Your task to perform on an android device: change the clock display to show seconds Image 0: 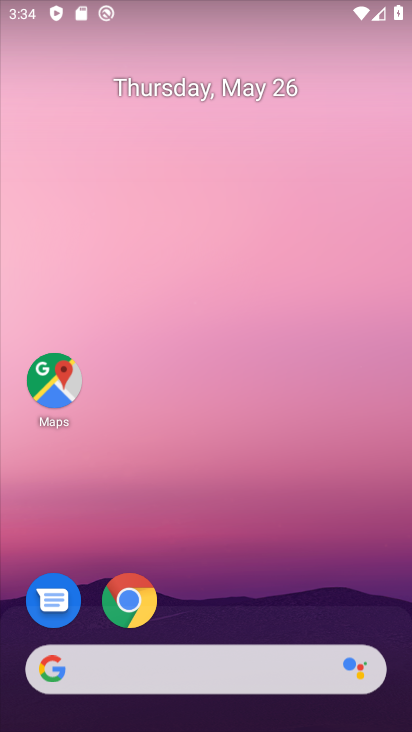
Step 0: drag from (236, 511) to (264, 175)
Your task to perform on an android device: change the clock display to show seconds Image 1: 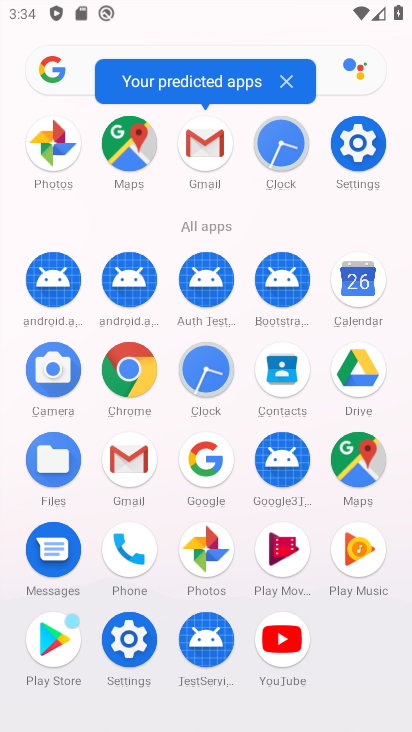
Step 1: click (201, 369)
Your task to perform on an android device: change the clock display to show seconds Image 2: 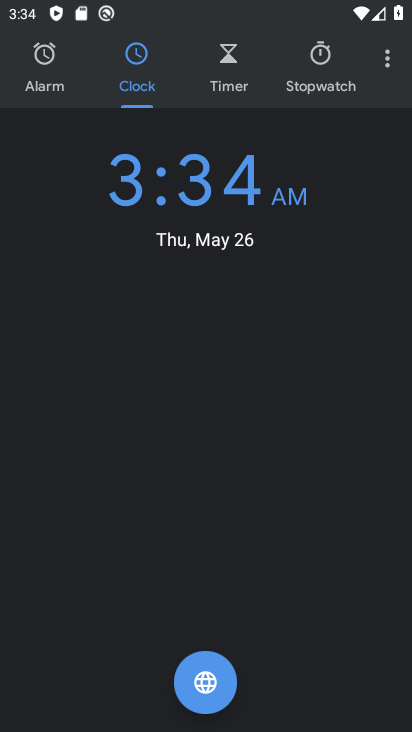
Step 2: click (384, 67)
Your task to perform on an android device: change the clock display to show seconds Image 3: 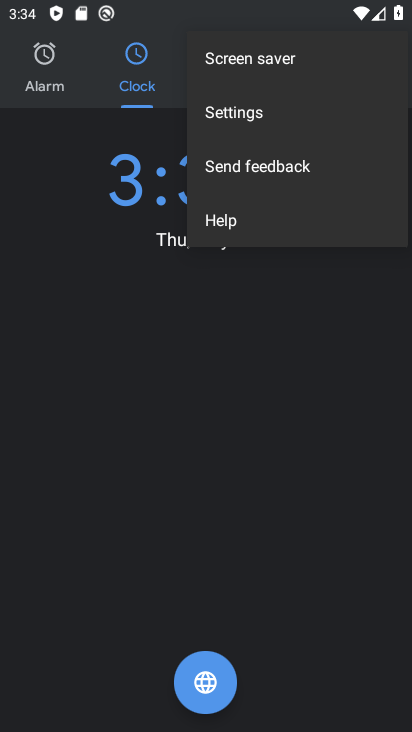
Step 3: click (214, 117)
Your task to perform on an android device: change the clock display to show seconds Image 4: 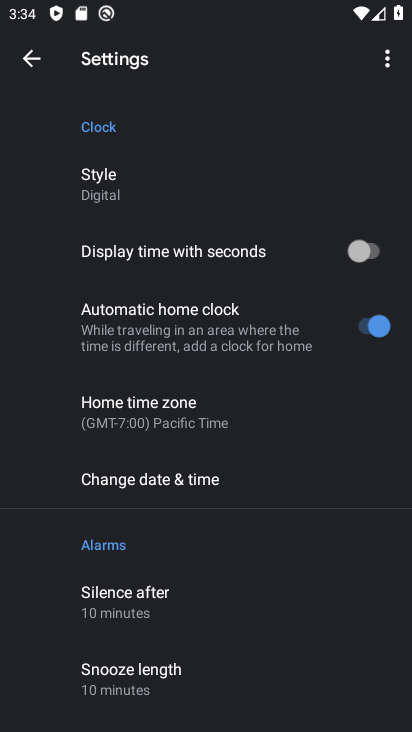
Step 4: click (133, 186)
Your task to perform on an android device: change the clock display to show seconds Image 5: 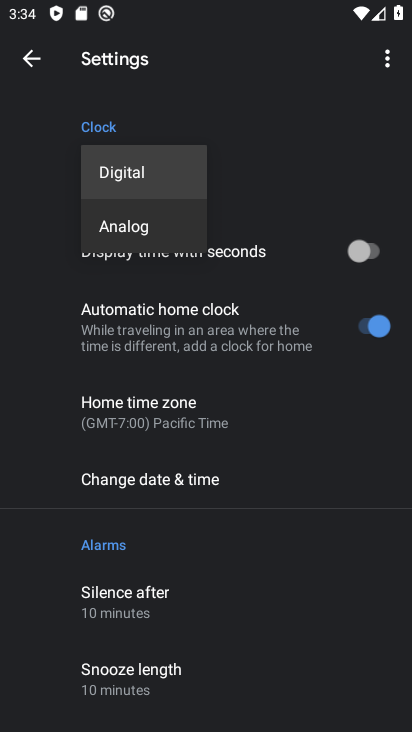
Step 5: click (151, 237)
Your task to perform on an android device: change the clock display to show seconds Image 6: 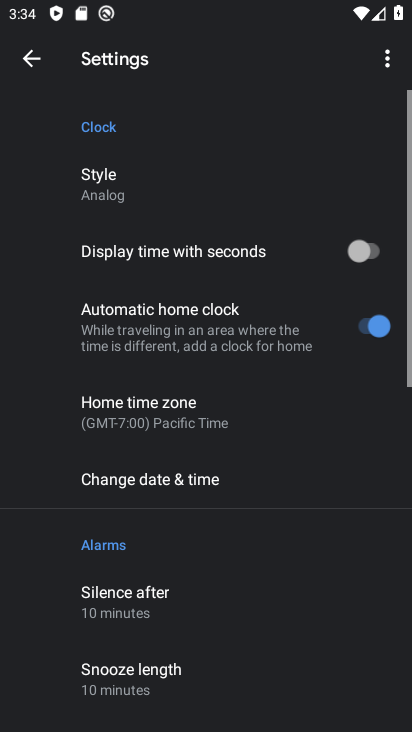
Step 6: click (375, 242)
Your task to perform on an android device: change the clock display to show seconds Image 7: 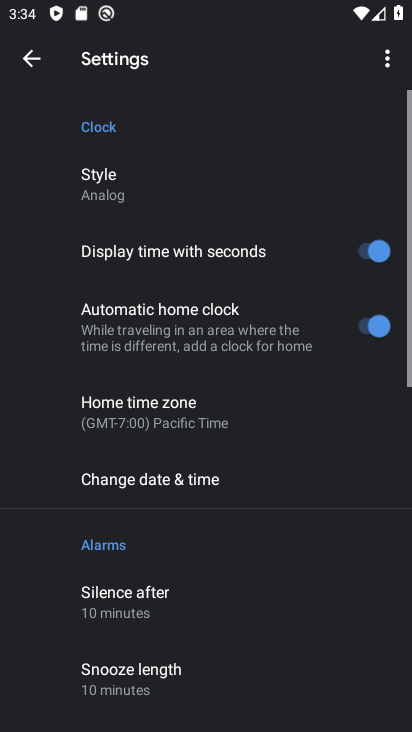
Step 7: task complete